Your task to perform on an android device: Search for pizza restaurants on Maps Image 0: 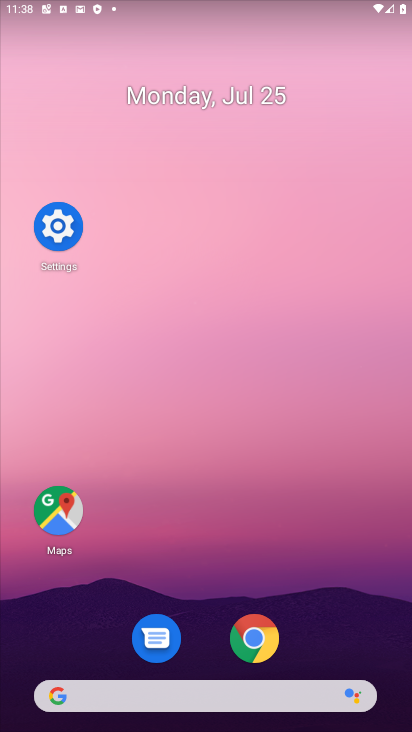
Step 0: click (63, 507)
Your task to perform on an android device: Search for pizza restaurants on Maps Image 1: 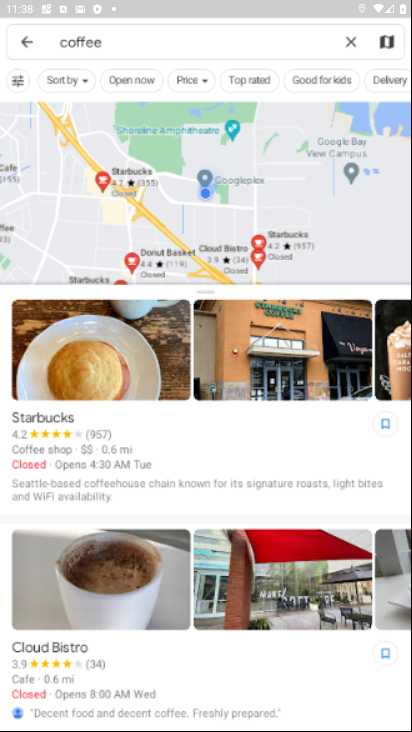
Step 1: click (352, 53)
Your task to perform on an android device: Search for pizza restaurants on Maps Image 2: 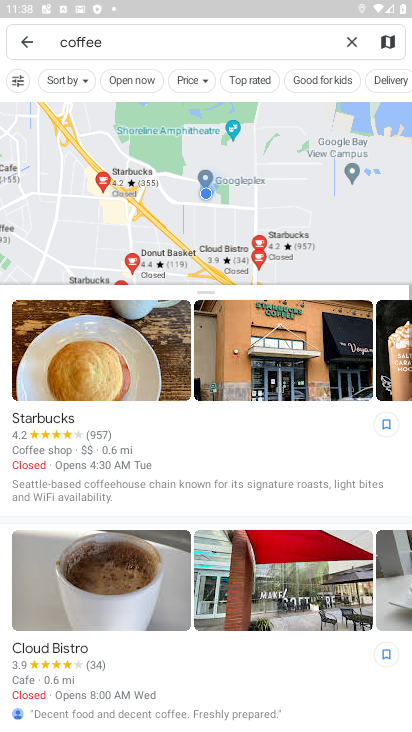
Step 2: click (346, 37)
Your task to perform on an android device: Search for pizza restaurants on Maps Image 3: 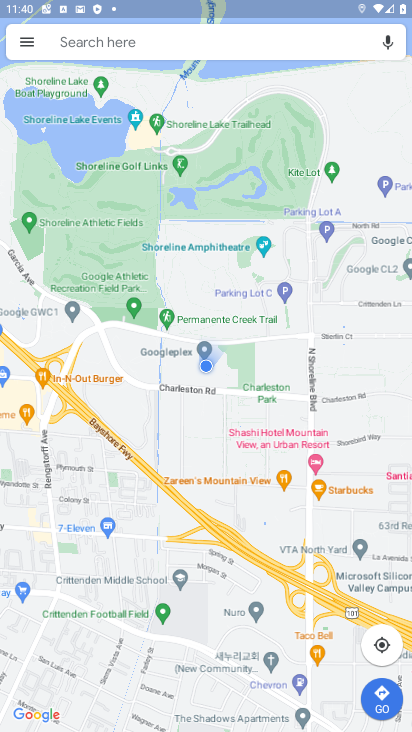
Step 3: click (116, 37)
Your task to perform on an android device: Search for pizza restaurants on Maps Image 4: 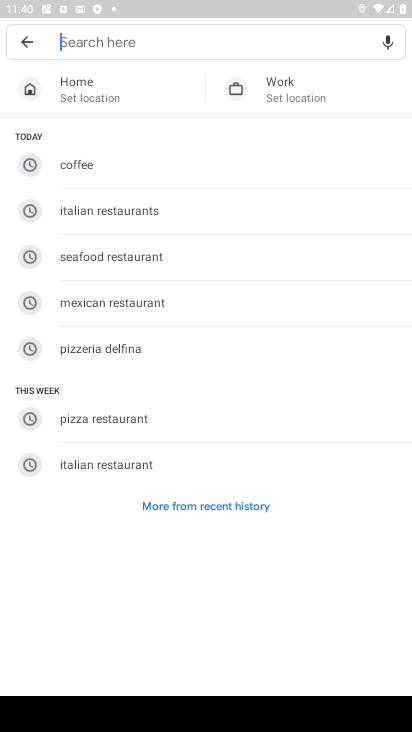
Step 4: click (188, 429)
Your task to perform on an android device: Search for pizza restaurants on Maps Image 5: 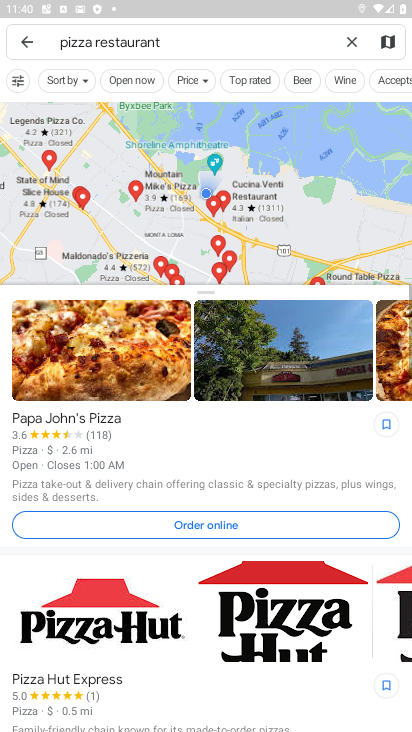
Step 5: task complete